Your task to perform on an android device: See recent photos Image 0: 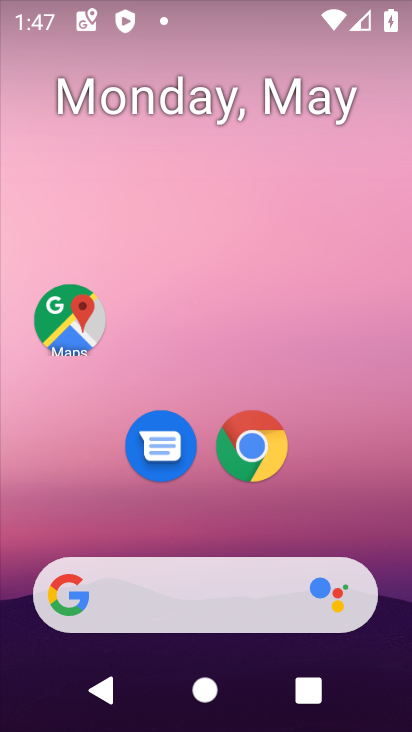
Step 0: drag from (182, 575) to (153, 265)
Your task to perform on an android device: See recent photos Image 1: 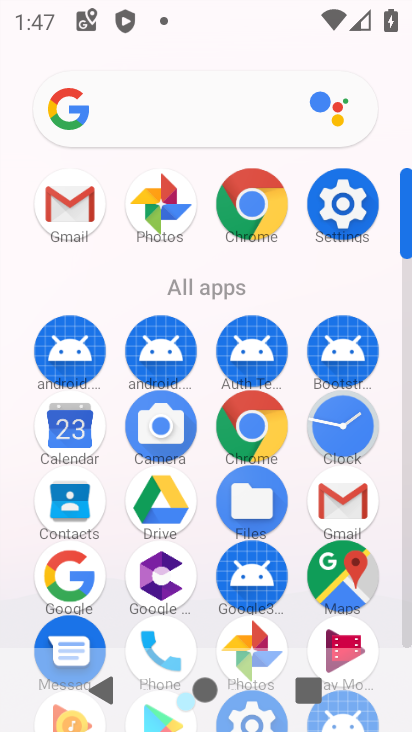
Step 1: click (243, 630)
Your task to perform on an android device: See recent photos Image 2: 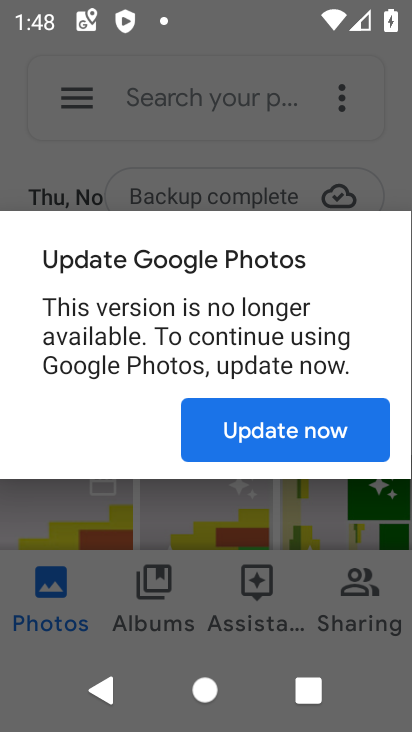
Step 2: click (266, 433)
Your task to perform on an android device: See recent photos Image 3: 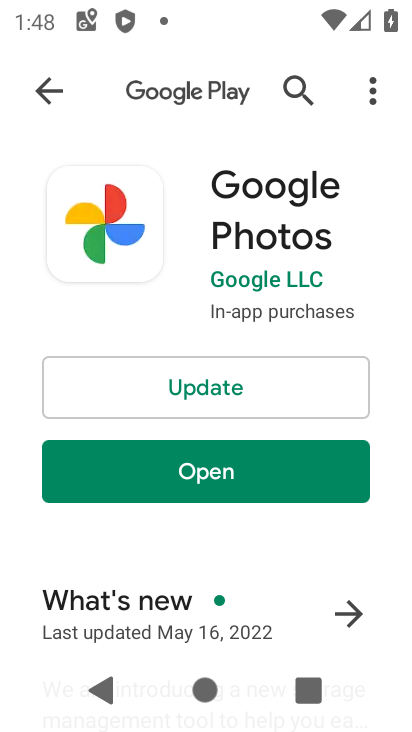
Step 3: click (247, 404)
Your task to perform on an android device: See recent photos Image 4: 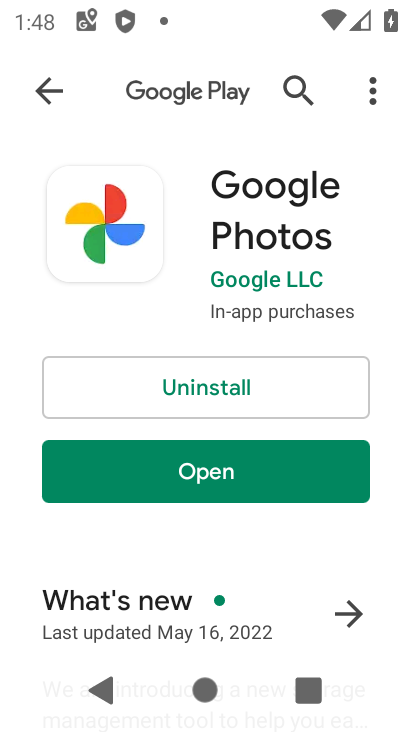
Step 4: click (254, 486)
Your task to perform on an android device: See recent photos Image 5: 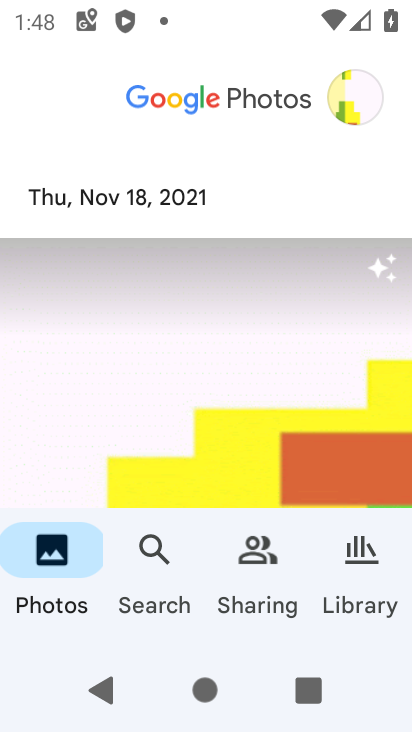
Step 5: task complete